Your task to perform on an android device: Go to Android settings Image 0: 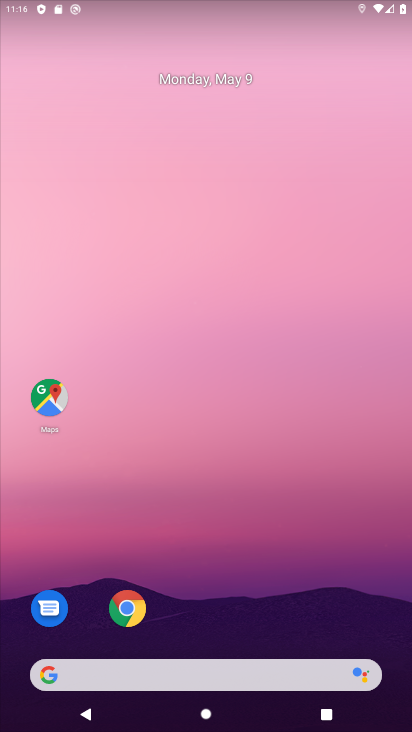
Step 0: drag from (115, 516) to (301, 86)
Your task to perform on an android device: Go to Android settings Image 1: 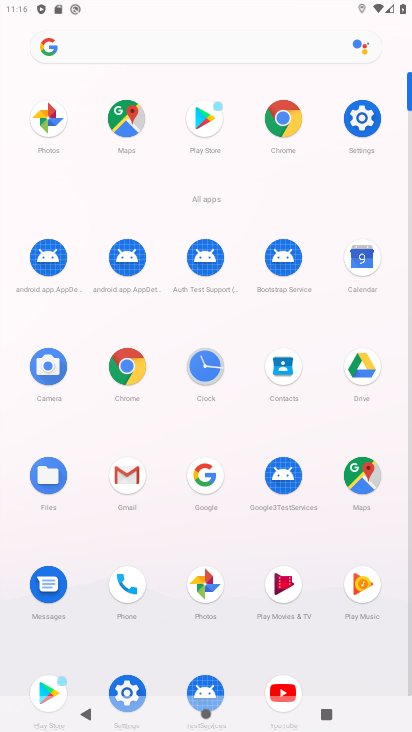
Step 1: click (352, 123)
Your task to perform on an android device: Go to Android settings Image 2: 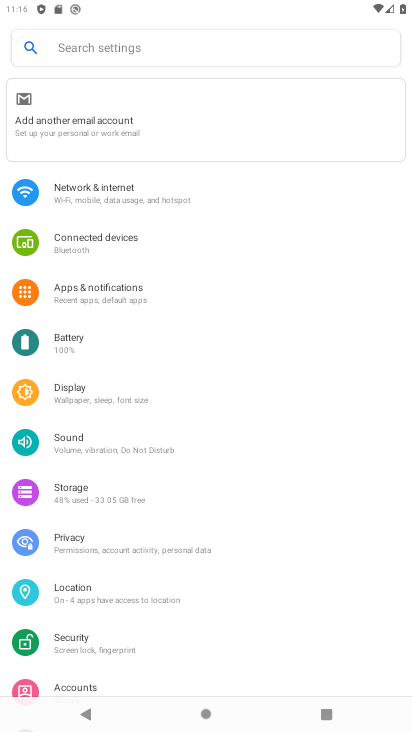
Step 2: drag from (165, 672) to (257, 193)
Your task to perform on an android device: Go to Android settings Image 3: 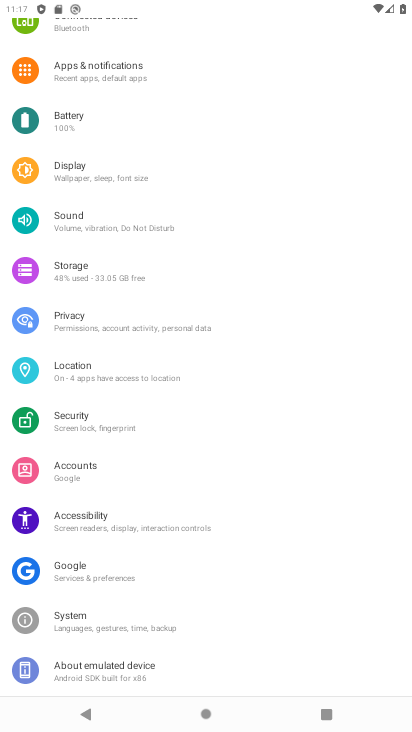
Step 3: click (92, 667)
Your task to perform on an android device: Go to Android settings Image 4: 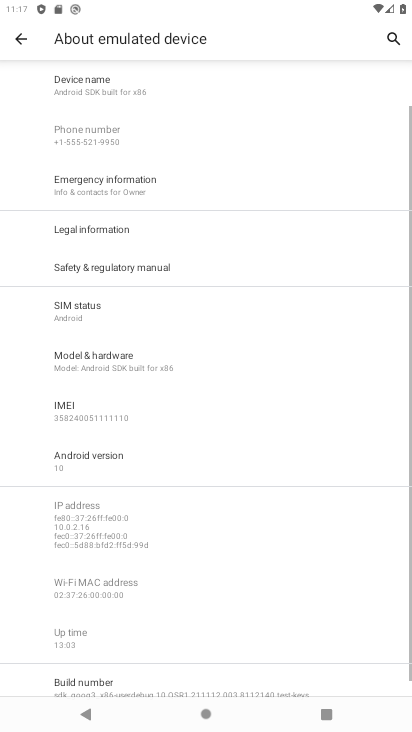
Step 4: task complete